Your task to perform on an android device: delete browsing data in the chrome app Image 0: 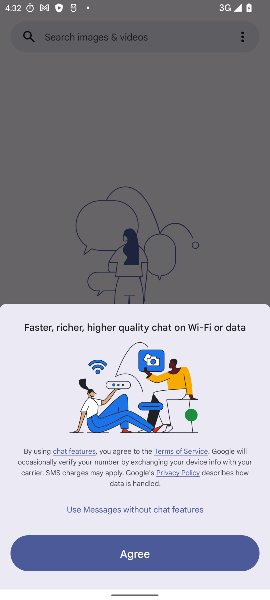
Step 0: press home button
Your task to perform on an android device: delete browsing data in the chrome app Image 1: 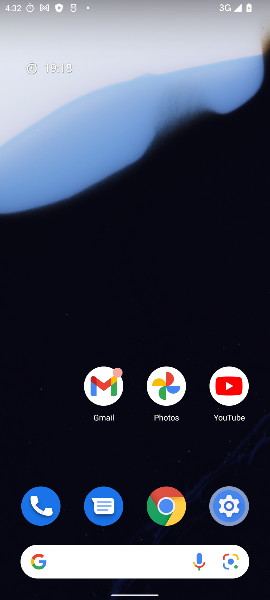
Step 1: drag from (69, 536) to (141, 92)
Your task to perform on an android device: delete browsing data in the chrome app Image 2: 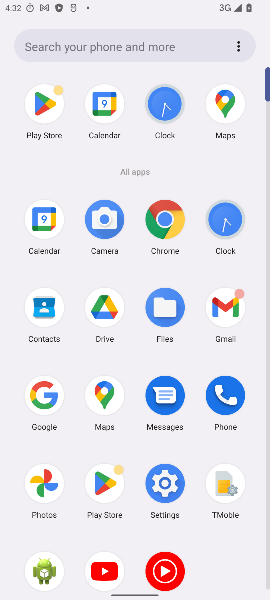
Step 2: click (176, 226)
Your task to perform on an android device: delete browsing data in the chrome app Image 3: 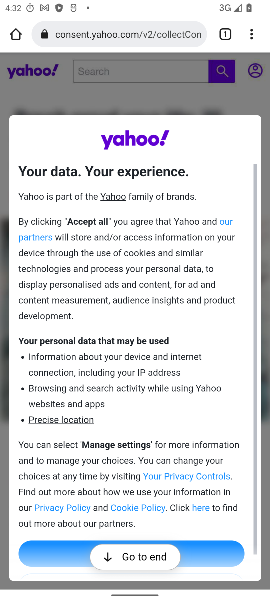
Step 3: drag from (249, 32) to (145, 138)
Your task to perform on an android device: delete browsing data in the chrome app Image 4: 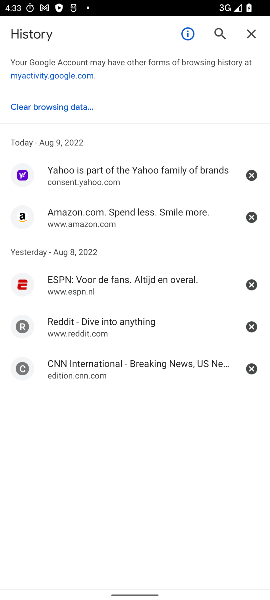
Step 4: click (49, 106)
Your task to perform on an android device: delete browsing data in the chrome app Image 5: 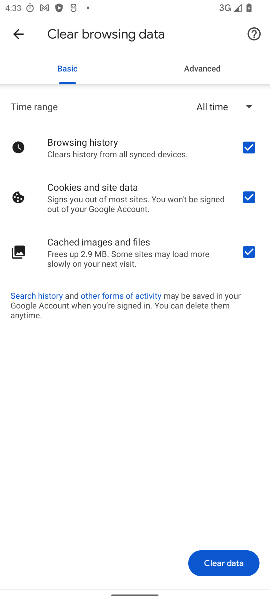
Step 5: click (248, 209)
Your task to perform on an android device: delete browsing data in the chrome app Image 6: 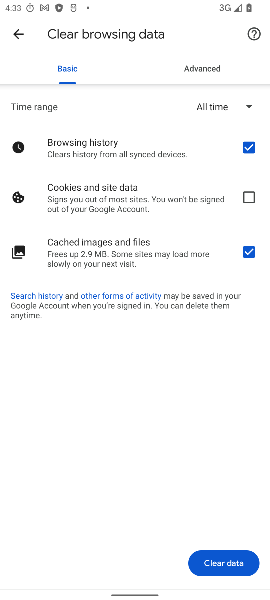
Step 6: click (245, 258)
Your task to perform on an android device: delete browsing data in the chrome app Image 7: 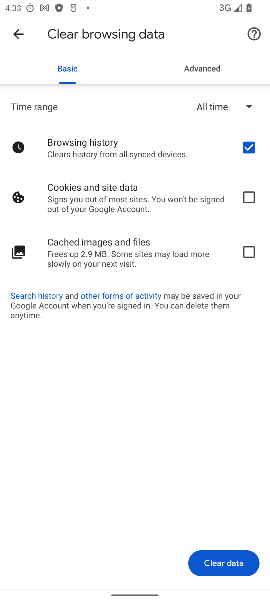
Step 7: click (236, 557)
Your task to perform on an android device: delete browsing data in the chrome app Image 8: 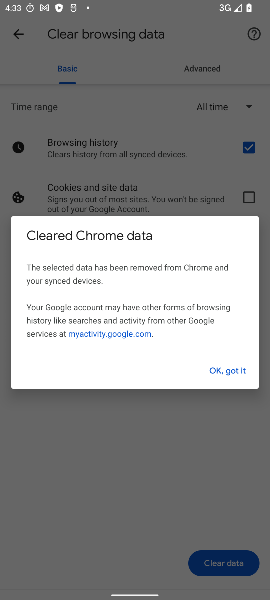
Step 8: click (222, 367)
Your task to perform on an android device: delete browsing data in the chrome app Image 9: 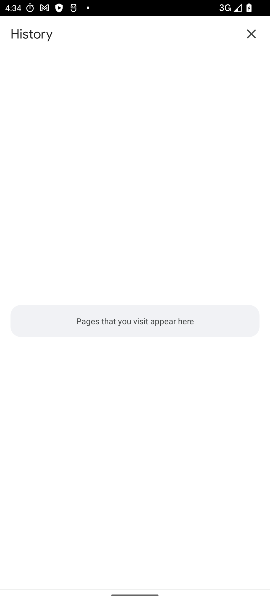
Step 9: task complete